Your task to perform on an android device: turn on the 12-hour format for clock Image 0: 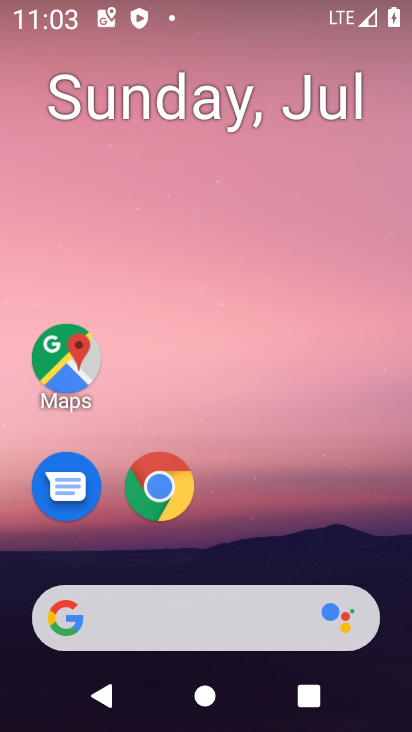
Step 0: press home button
Your task to perform on an android device: turn on the 12-hour format for clock Image 1: 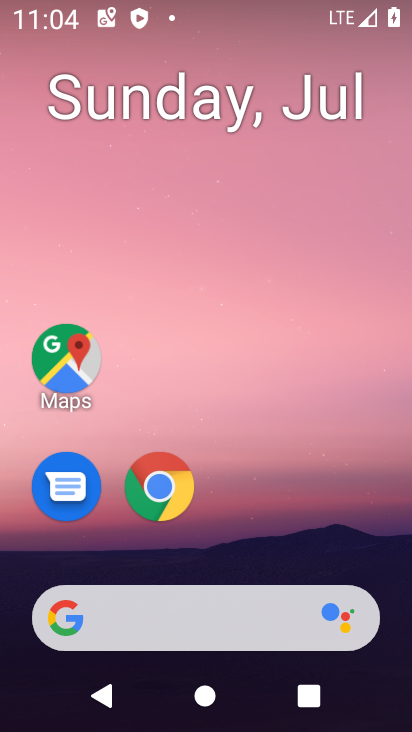
Step 1: drag from (373, 537) to (390, 178)
Your task to perform on an android device: turn on the 12-hour format for clock Image 2: 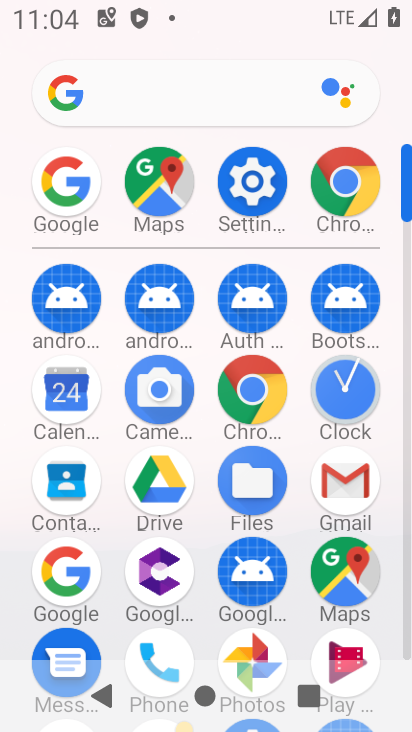
Step 2: click (344, 378)
Your task to perform on an android device: turn on the 12-hour format for clock Image 3: 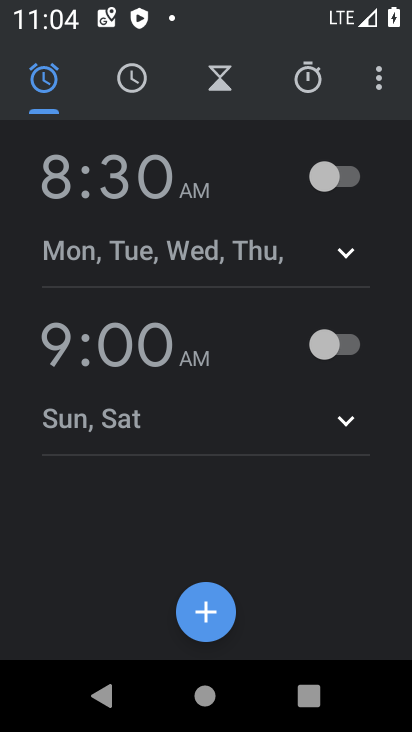
Step 3: click (378, 94)
Your task to perform on an android device: turn on the 12-hour format for clock Image 4: 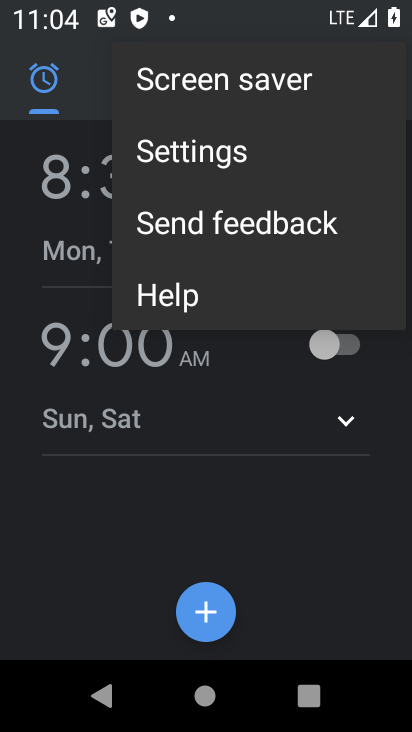
Step 4: click (248, 159)
Your task to perform on an android device: turn on the 12-hour format for clock Image 5: 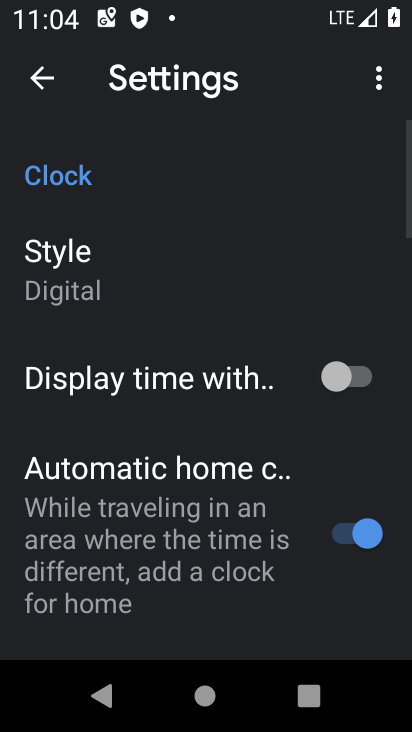
Step 5: drag from (240, 440) to (236, 295)
Your task to perform on an android device: turn on the 12-hour format for clock Image 6: 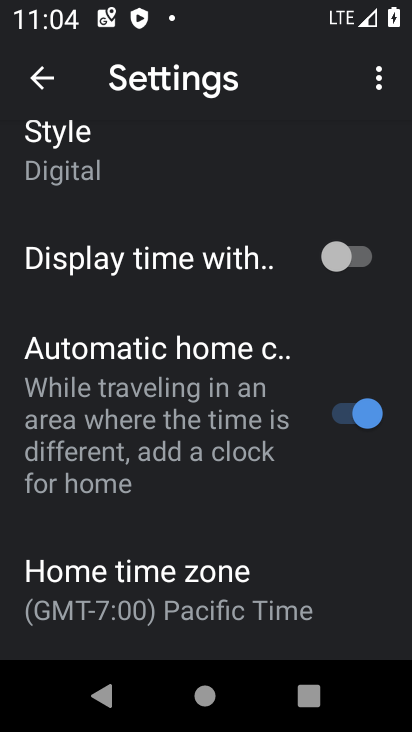
Step 6: drag from (254, 470) to (250, 360)
Your task to perform on an android device: turn on the 12-hour format for clock Image 7: 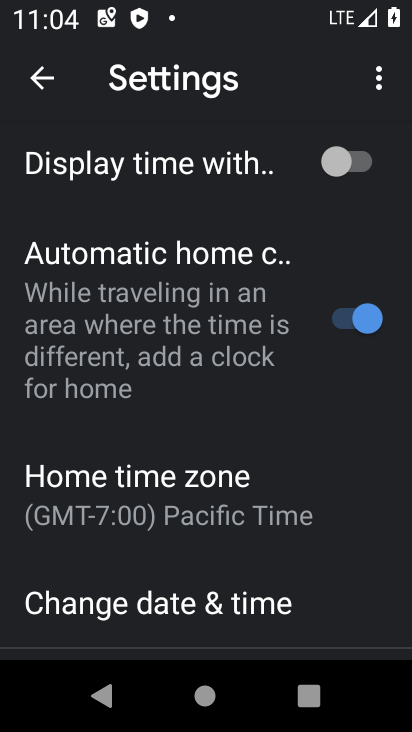
Step 7: drag from (250, 486) to (256, 371)
Your task to perform on an android device: turn on the 12-hour format for clock Image 8: 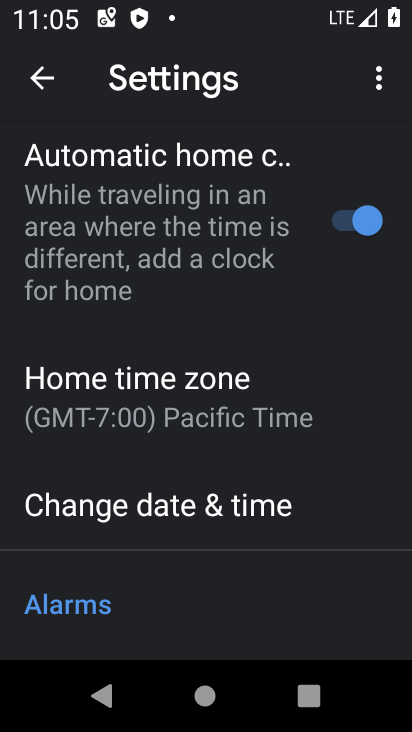
Step 8: drag from (247, 542) to (246, 405)
Your task to perform on an android device: turn on the 12-hour format for clock Image 9: 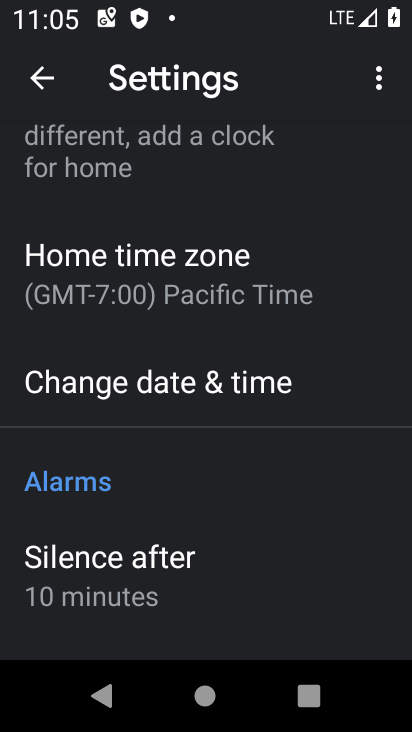
Step 9: click (176, 382)
Your task to perform on an android device: turn on the 12-hour format for clock Image 10: 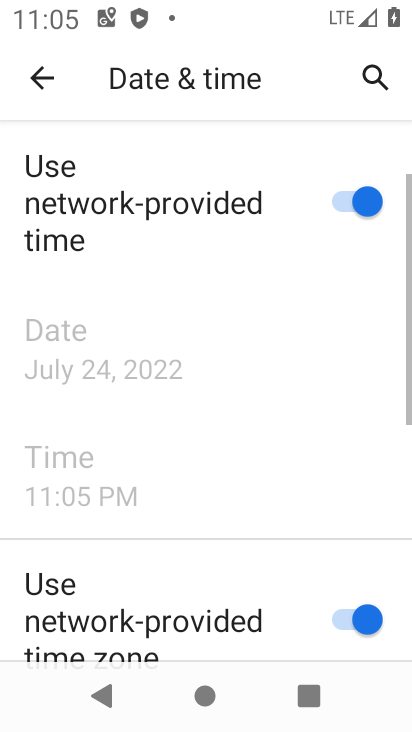
Step 10: task complete